Your task to perform on an android device: check data usage Image 0: 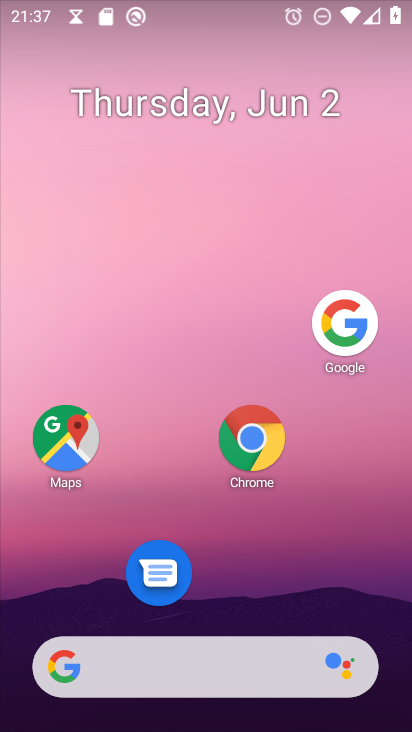
Step 0: press home button
Your task to perform on an android device: check data usage Image 1: 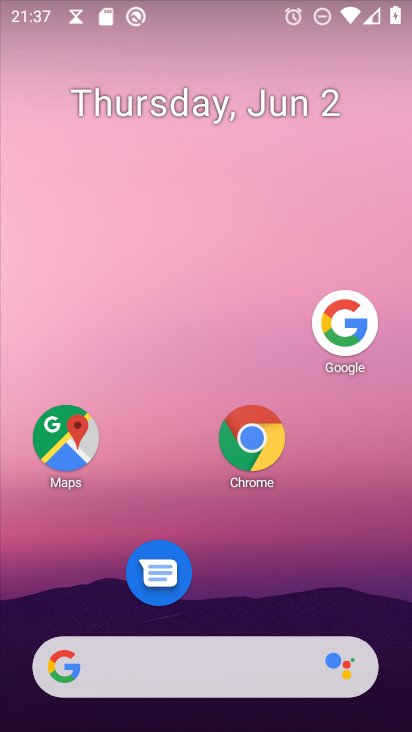
Step 1: drag from (162, 671) to (302, 95)
Your task to perform on an android device: check data usage Image 2: 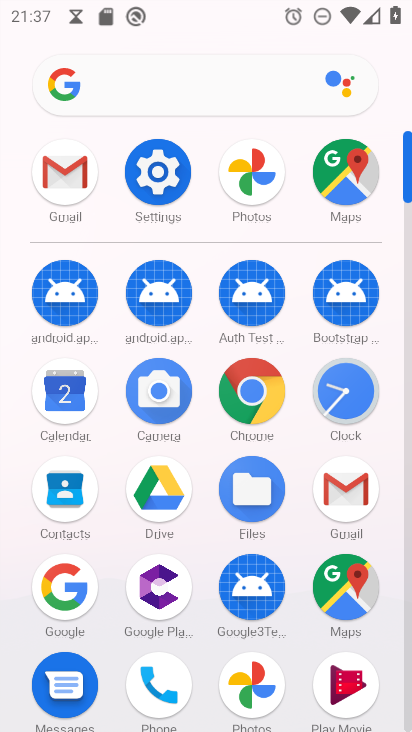
Step 2: click (152, 173)
Your task to perform on an android device: check data usage Image 3: 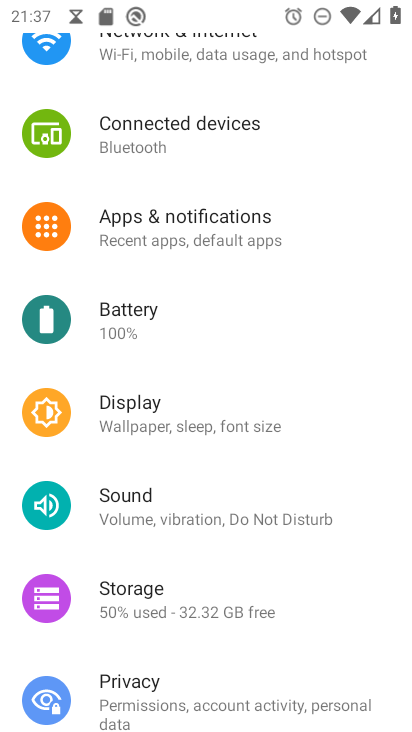
Step 3: drag from (322, 166) to (268, 525)
Your task to perform on an android device: check data usage Image 4: 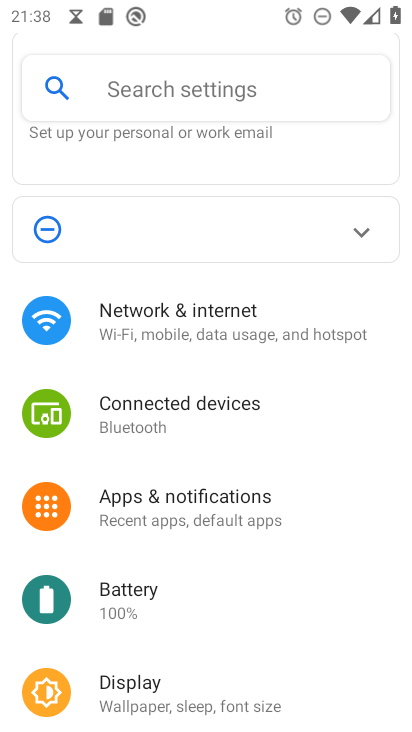
Step 4: click (185, 321)
Your task to perform on an android device: check data usage Image 5: 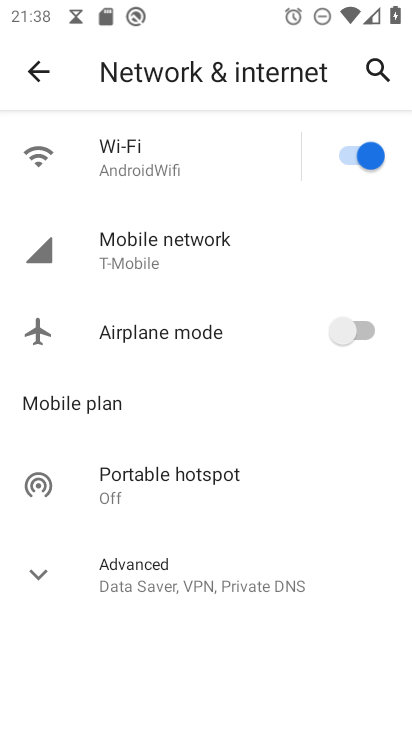
Step 5: click (143, 166)
Your task to perform on an android device: check data usage Image 6: 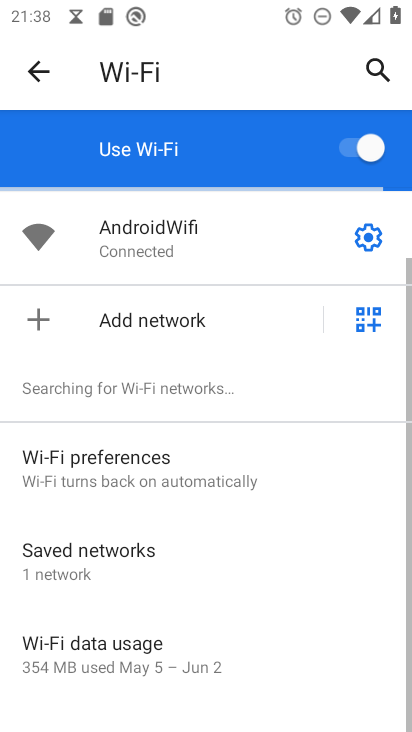
Step 6: task complete